Your task to perform on an android device: turn off translation in the chrome app Image 0: 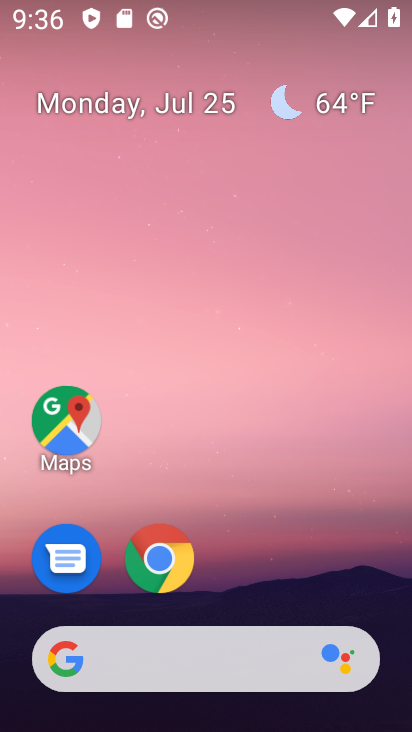
Step 0: press home button
Your task to perform on an android device: turn off translation in the chrome app Image 1: 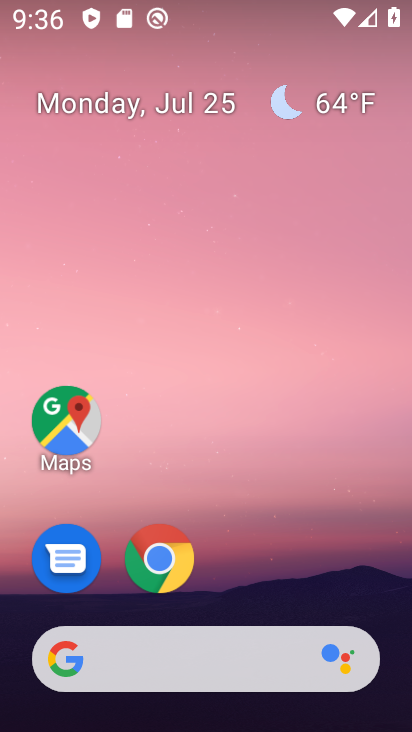
Step 1: drag from (353, 535) to (375, 108)
Your task to perform on an android device: turn off translation in the chrome app Image 2: 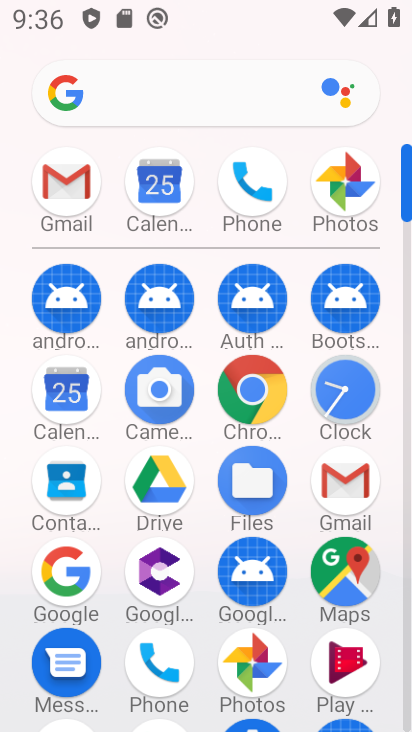
Step 2: click (258, 386)
Your task to perform on an android device: turn off translation in the chrome app Image 3: 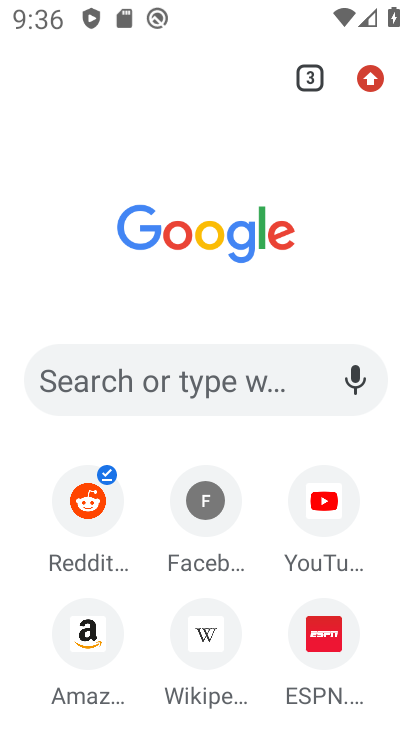
Step 3: click (361, 82)
Your task to perform on an android device: turn off translation in the chrome app Image 4: 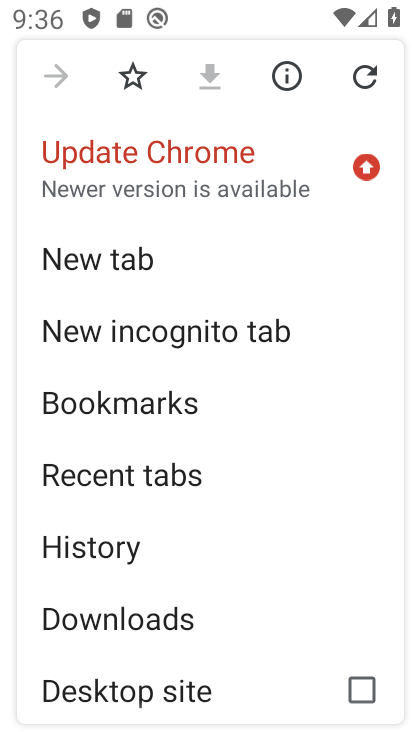
Step 4: drag from (299, 567) to (308, 471)
Your task to perform on an android device: turn off translation in the chrome app Image 5: 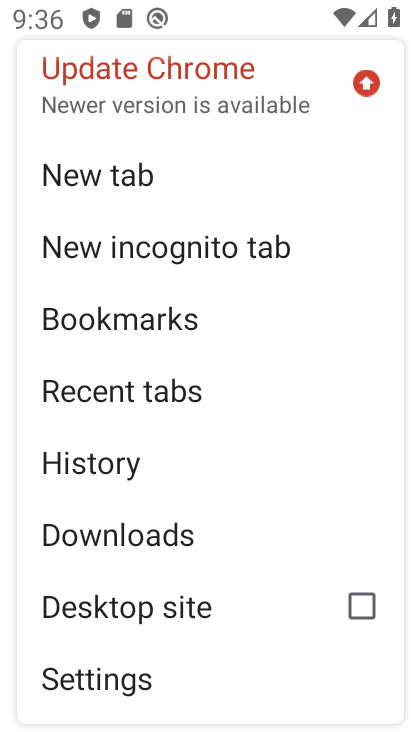
Step 5: drag from (248, 615) to (259, 496)
Your task to perform on an android device: turn off translation in the chrome app Image 6: 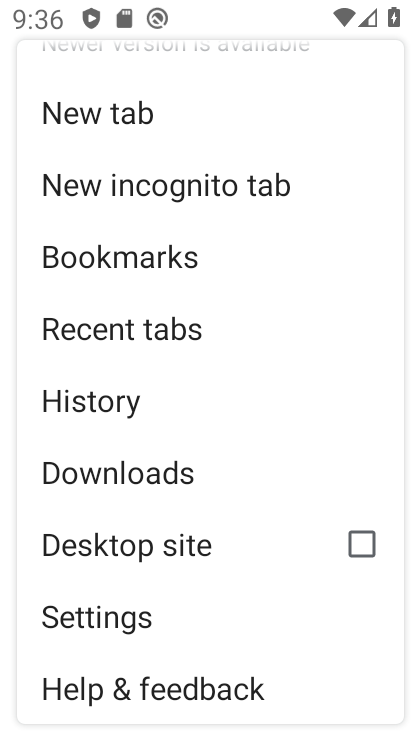
Step 6: click (224, 618)
Your task to perform on an android device: turn off translation in the chrome app Image 7: 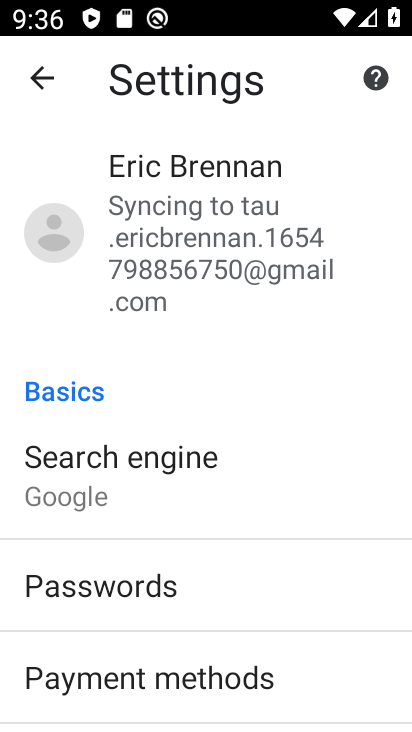
Step 7: drag from (316, 601) to (319, 492)
Your task to perform on an android device: turn off translation in the chrome app Image 8: 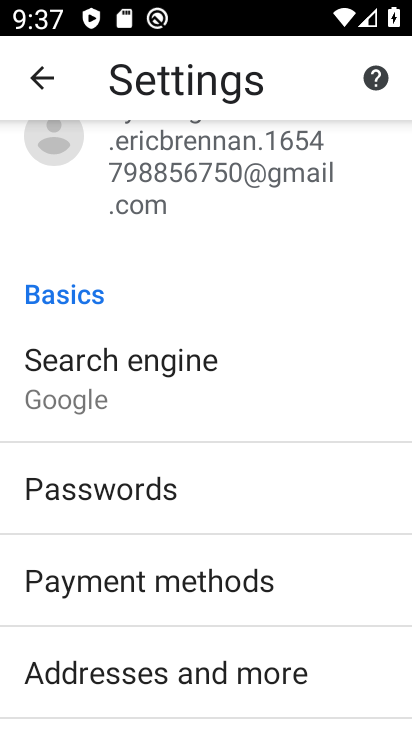
Step 8: drag from (343, 612) to (350, 515)
Your task to perform on an android device: turn off translation in the chrome app Image 9: 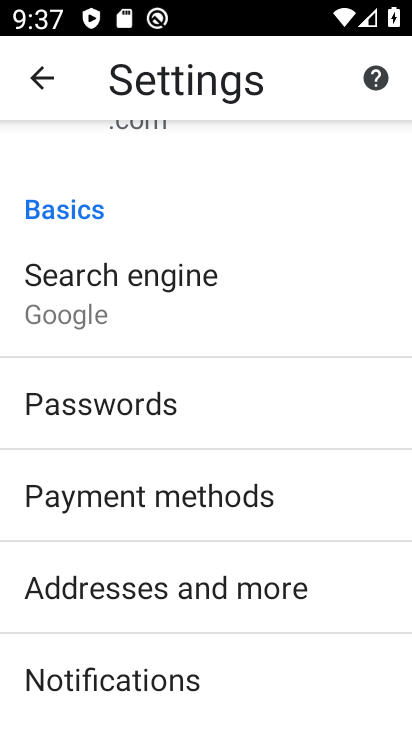
Step 9: drag from (341, 630) to (352, 543)
Your task to perform on an android device: turn off translation in the chrome app Image 10: 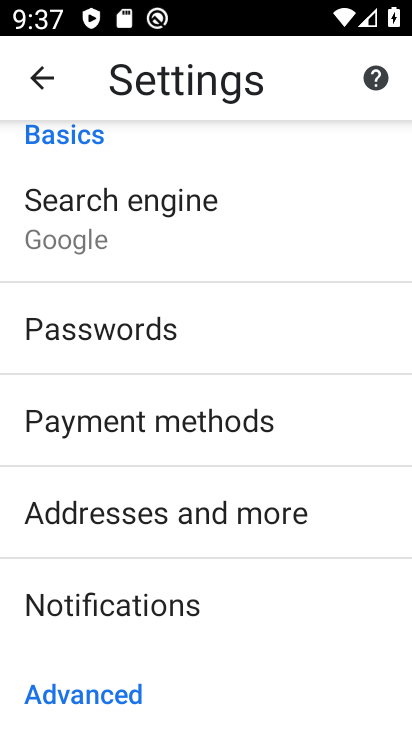
Step 10: drag from (353, 620) to (356, 542)
Your task to perform on an android device: turn off translation in the chrome app Image 11: 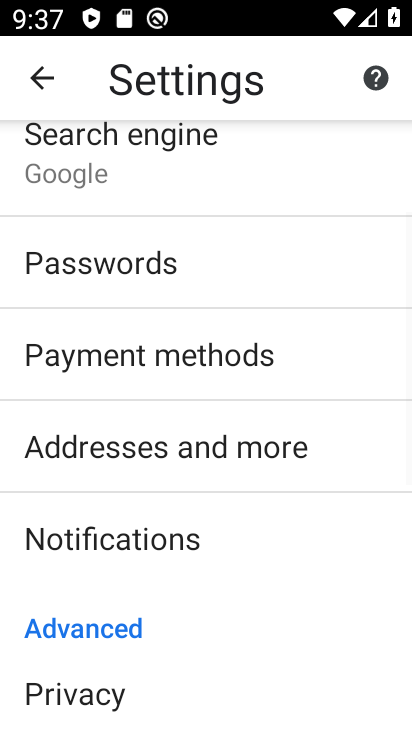
Step 11: drag from (337, 634) to (345, 557)
Your task to perform on an android device: turn off translation in the chrome app Image 12: 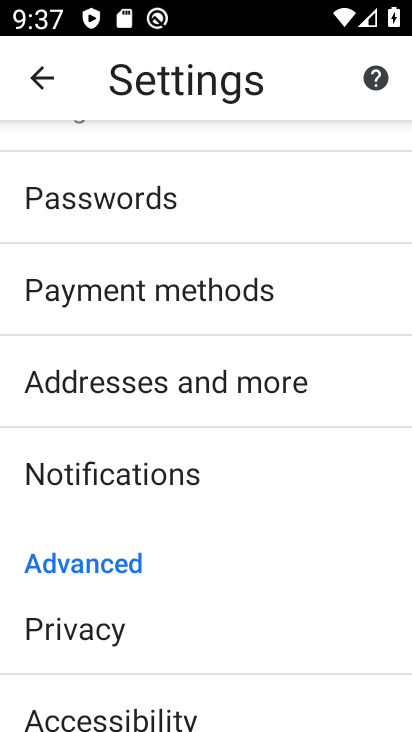
Step 12: drag from (337, 626) to (335, 565)
Your task to perform on an android device: turn off translation in the chrome app Image 13: 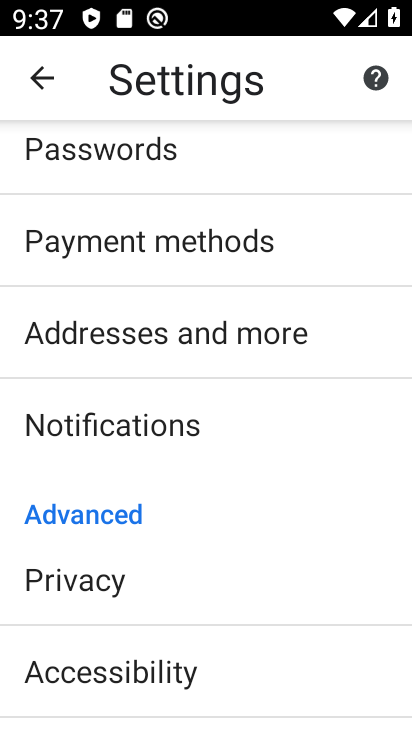
Step 13: drag from (330, 657) to (335, 560)
Your task to perform on an android device: turn off translation in the chrome app Image 14: 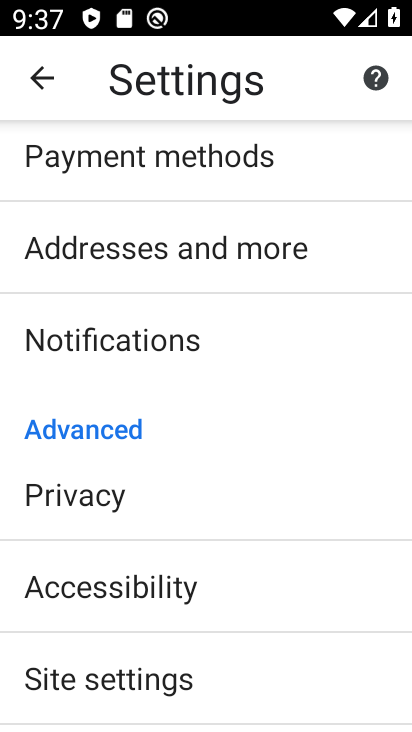
Step 14: drag from (319, 668) to (325, 580)
Your task to perform on an android device: turn off translation in the chrome app Image 15: 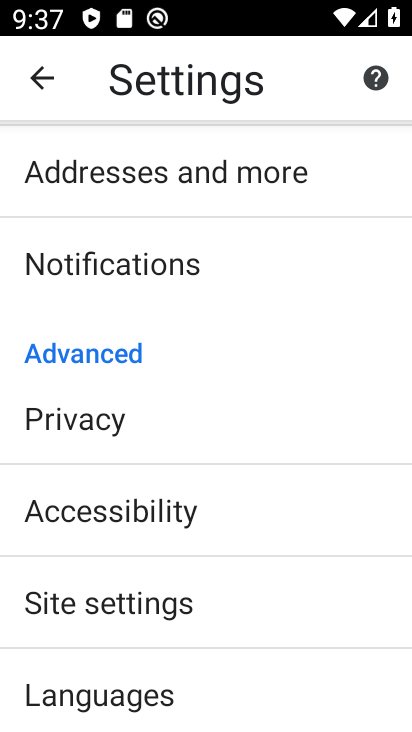
Step 15: drag from (317, 685) to (332, 593)
Your task to perform on an android device: turn off translation in the chrome app Image 16: 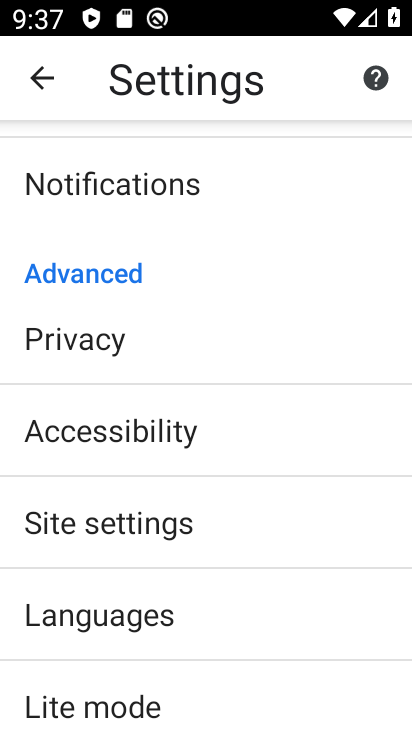
Step 16: click (321, 629)
Your task to perform on an android device: turn off translation in the chrome app Image 17: 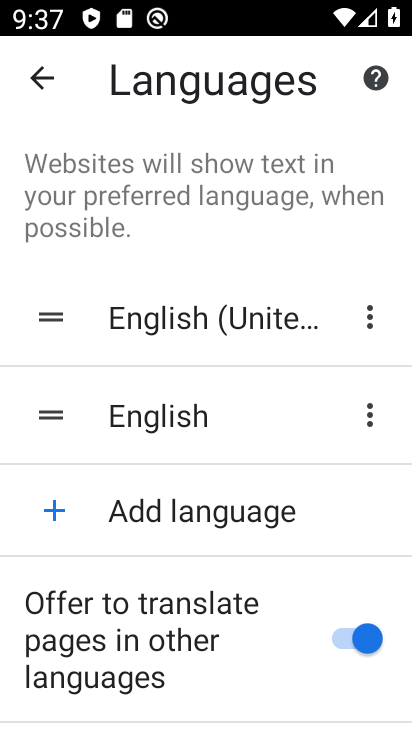
Step 17: click (371, 634)
Your task to perform on an android device: turn off translation in the chrome app Image 18: 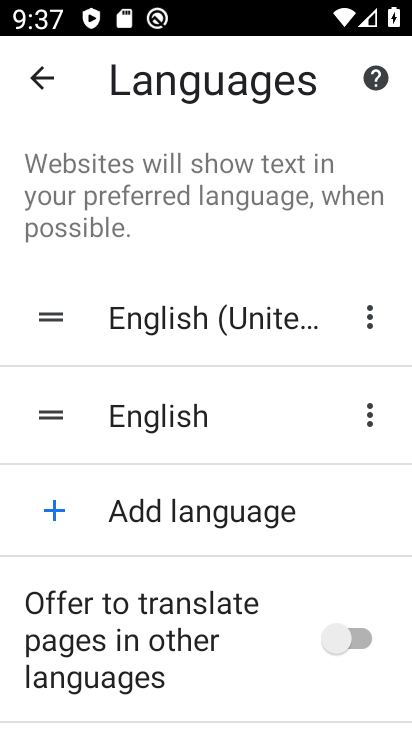
Step 18: task complete